Your task to perform on an android device: See recent photos Image 0: 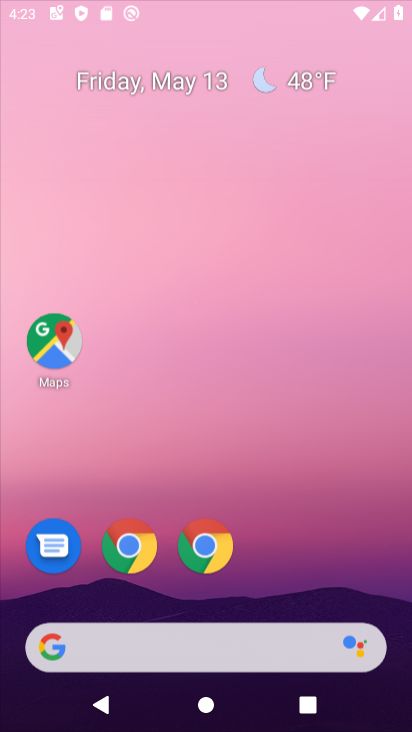
Step 0: click (183, 15)
Your task to perform on an android device: See recent photos Image 1: 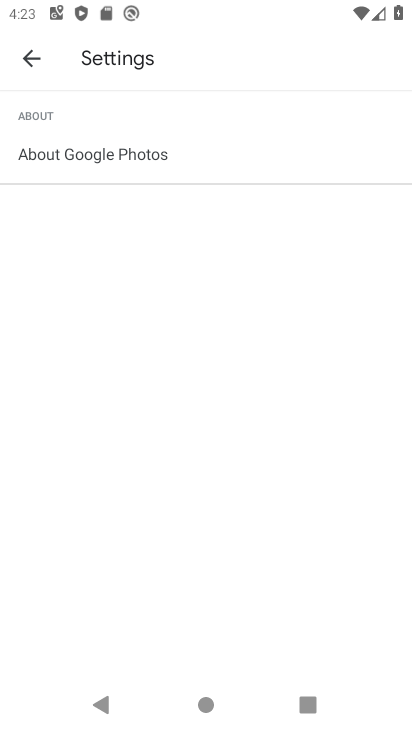
Step 1: press home button
Your task to perform on an android device: See recent photos Image 2: 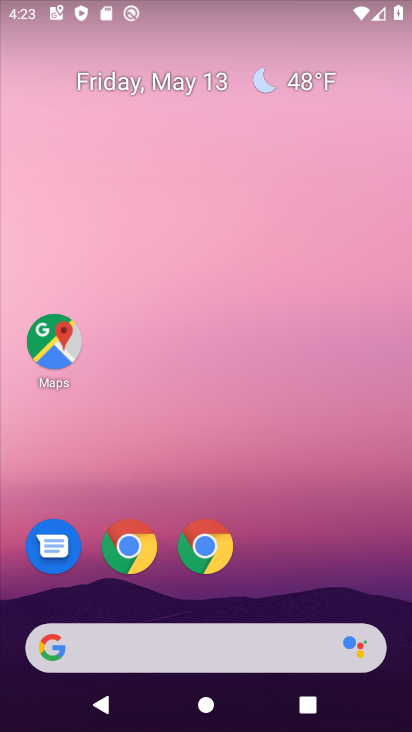
Step 2: press back button
Your task to perform on an android device: See recent photos Image 3: 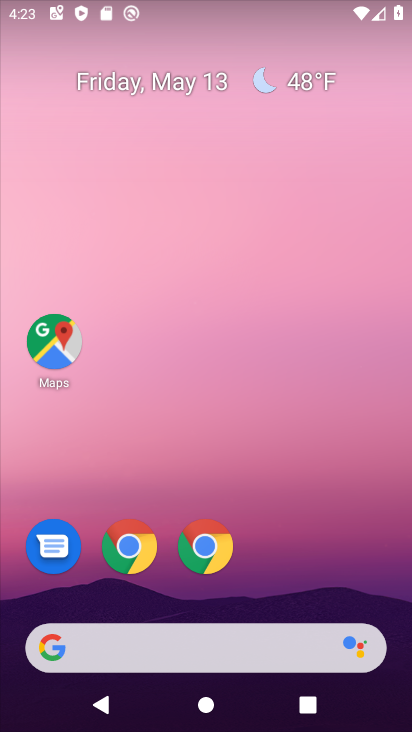
Step 3: drag from (300, 666) to (188, 104)
Your task to perform on an android device: See recent photos Image 4: 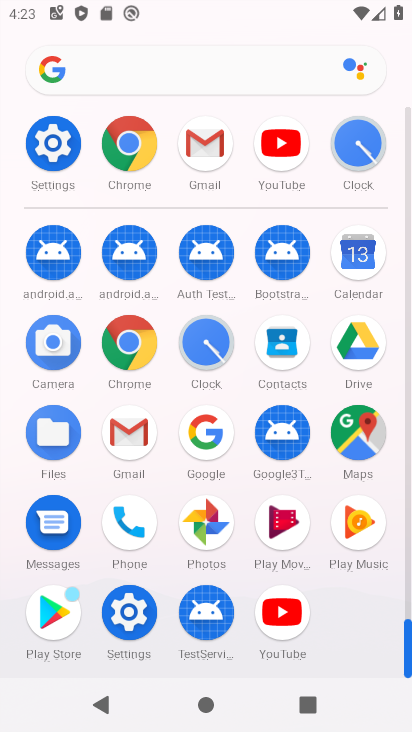
Step 4: click (196, 499)
Your task to perform on an android device: See recent photos Image 5: 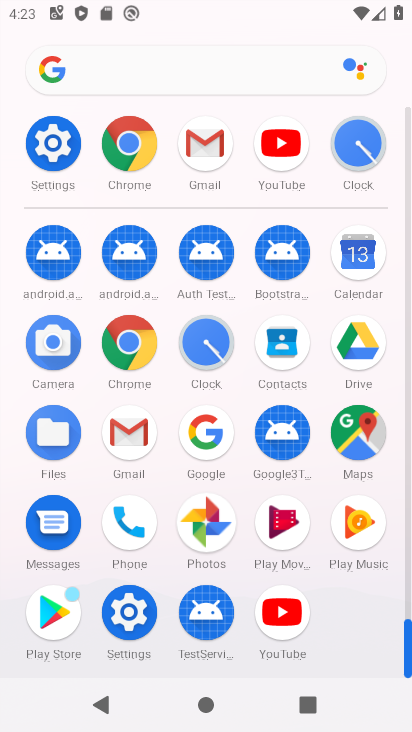
Step 5: click (196, 503)
Your task to perform on an android device: See recent photos Image 6: 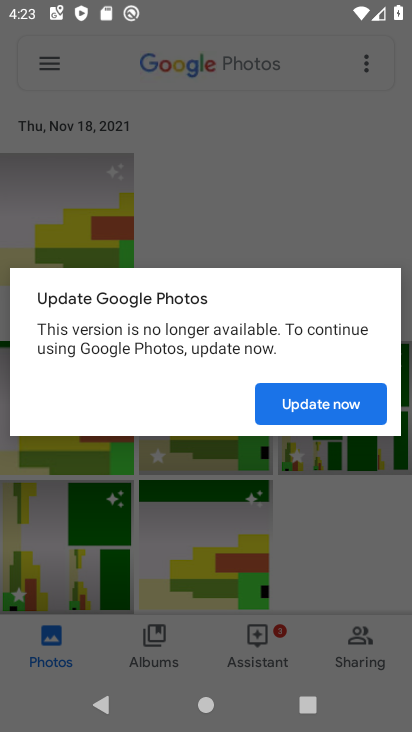
Step 6: task complete